Your task to perform on an android device: change keyboard looks Image 0: 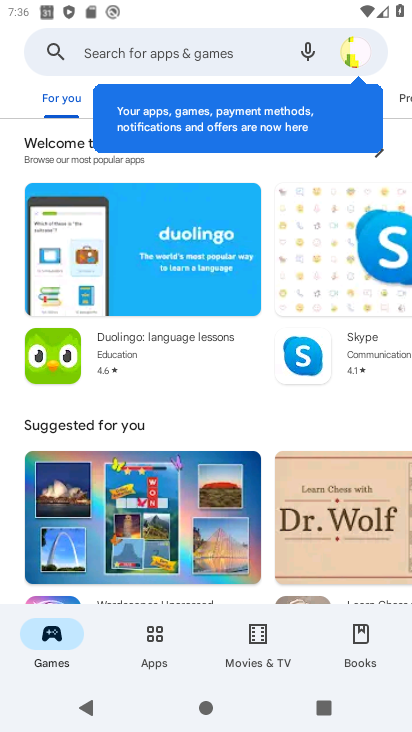
Step 0: press back button
Your task to perform on an android device: change keyboard looks Image 1: 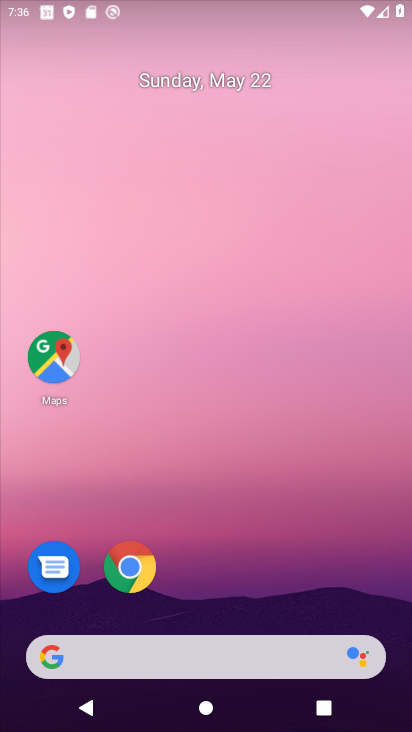
Step 1: drag from (258, 581) to (366, 51)
Your task to perform on an android device: change keyboard looks Image 2: 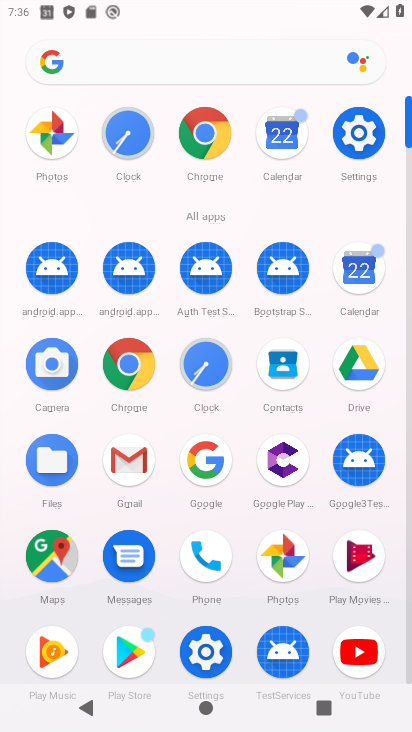
Step 2: click (368, 133)
Your task to perform on an android device: change keyboard looks Image 3: 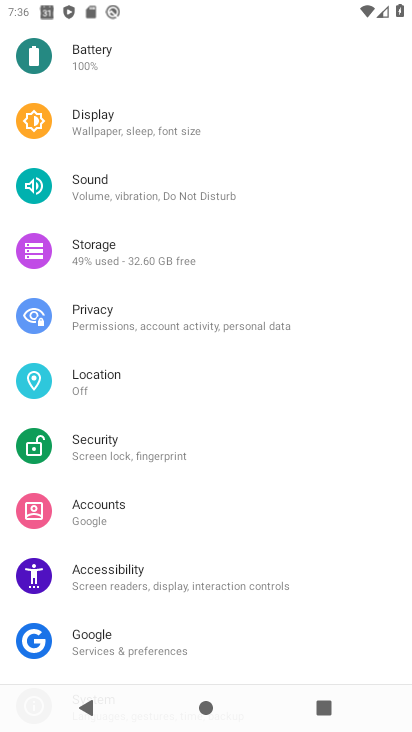
Step 3: drag from (117, 648) to (263, 0)
Your task to perform on an android device: change keyboard looks Image 4: 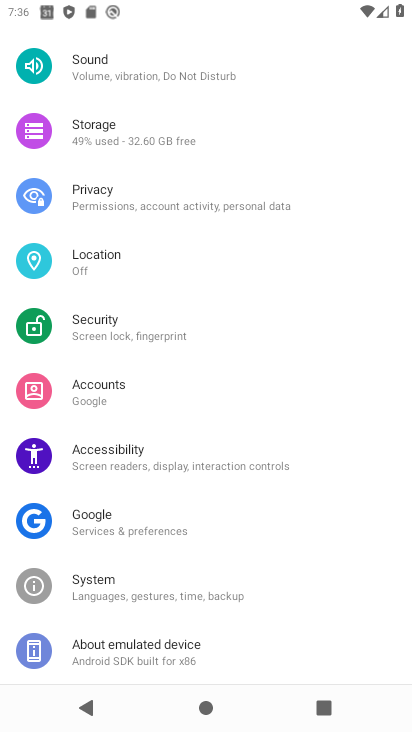
Step 4: click (95, 596)
Your task to perform on an android device: change keyboard looks Image 5: 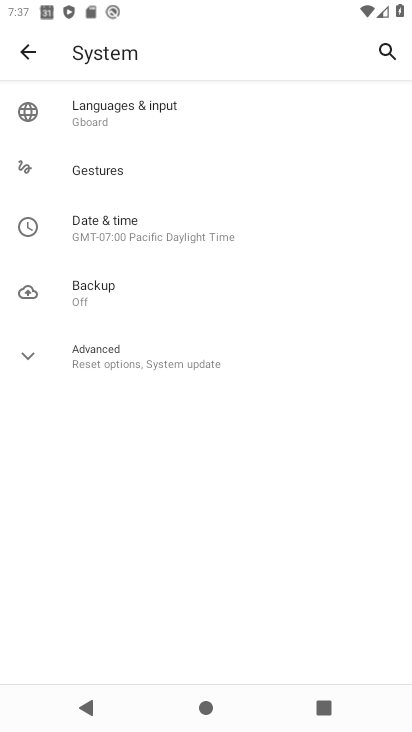
Step 5: click (117, 111)
Your task to perform on an android device: change keyboard looks Image 6: 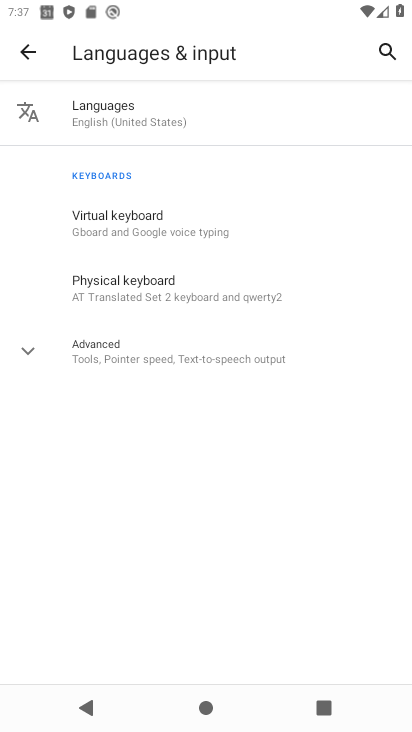
Step 6: click (111, 218)
Your task to perform on an android device: change keyboard looks Image 7: 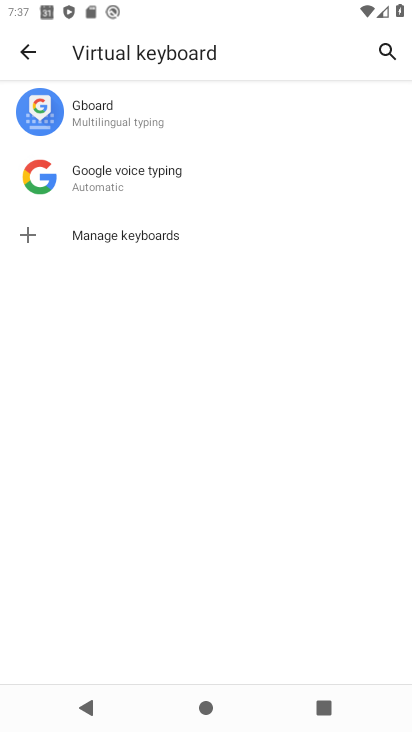
Step 7: click (121, 103)
Your task to perform on an android device: change keyboard looks Image 8: 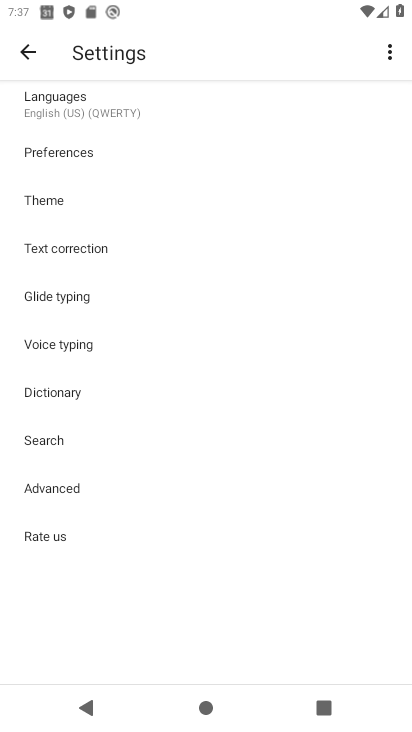
Step 8: click (72, 199)
Your task to perform on an android device: change keyboard looks Image 9: 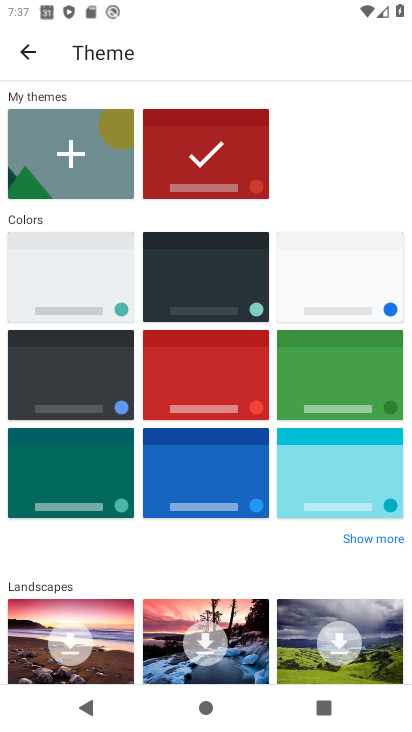
Step 9: click (365, 416)
Your task to perform on an android device: change keyboard looks Image 10: 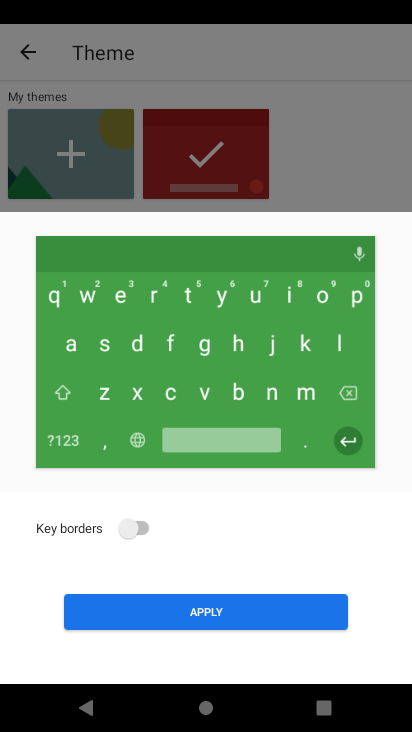
Step 10: click (179, 622)
Your task to perform on an android device: change keyboard looks Image 11: 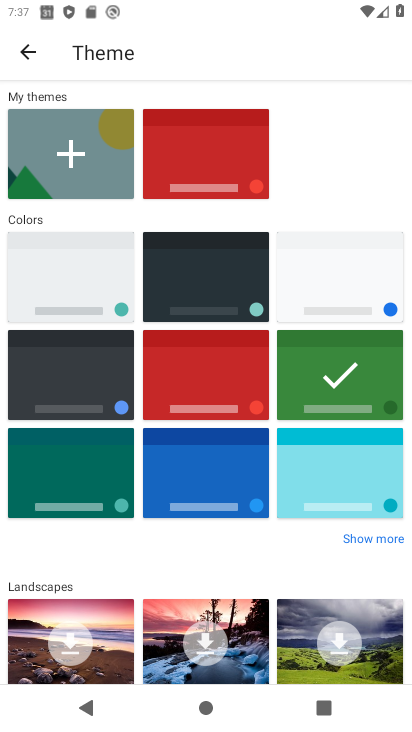
Step 11: task complete